Your task to perform on an android device: see creations saved in the google photos Image 0: 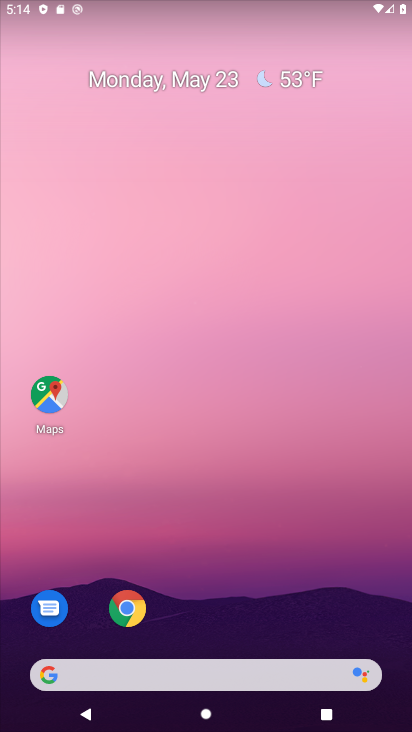
Step 0: press home button
Your task to perform on an android device: see creations saved in the google photos Image 1: 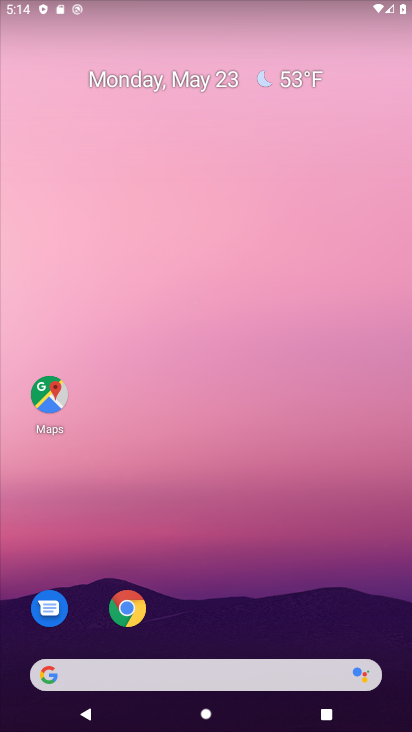
Step 1: drag from (102, 444) to (238, 114)
Your task to perform on an android device: see creations saved in the google photos Image 2: 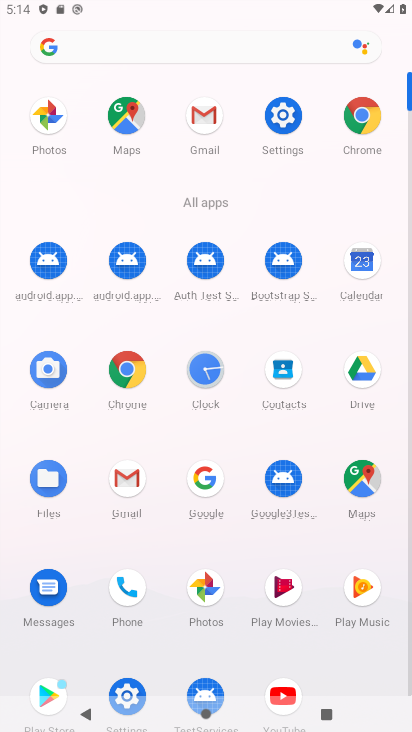
Step 2: click (206, 581)
Your task to perform on an android device: see creations saved in the google photos Image 3: 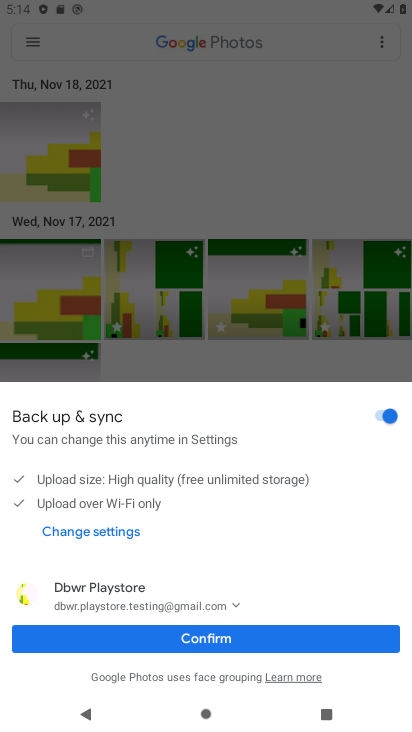
Step 3: click (252, 643)
Your task to perform on an android device: see creations saved in the google photos Image 4: 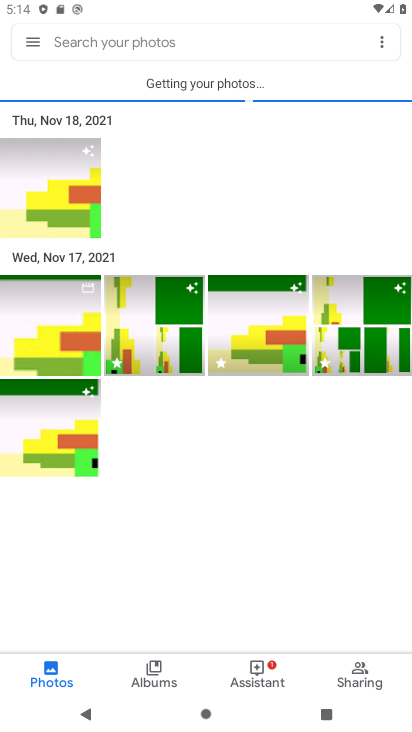
Step 4: click (194, 31)
Your task to perform on an android device: see creations saved in the google photos Image 5: 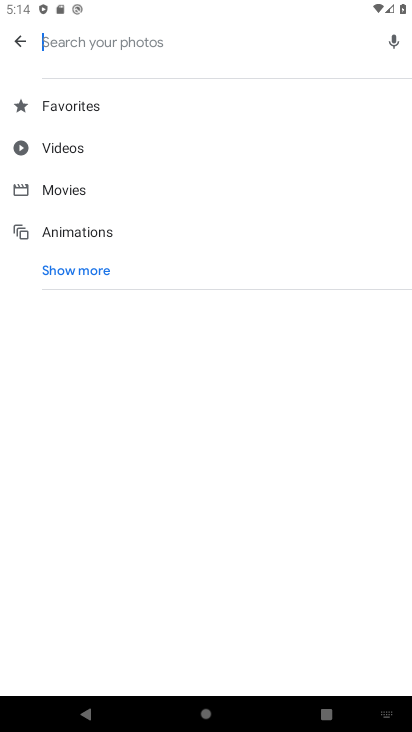
Step 5: click (91, 272)
Your task to perform on an android device: see creations saved in the google photos Image 6: 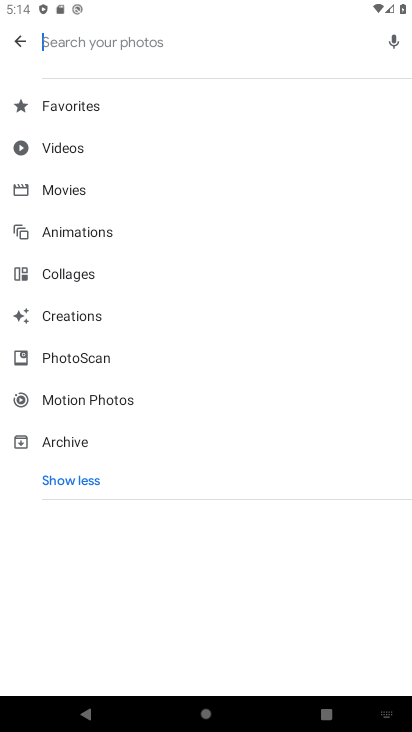
Step 6: click (56, 315)
Your task to perform on an android device: see creations saved in the google photos Image 7: 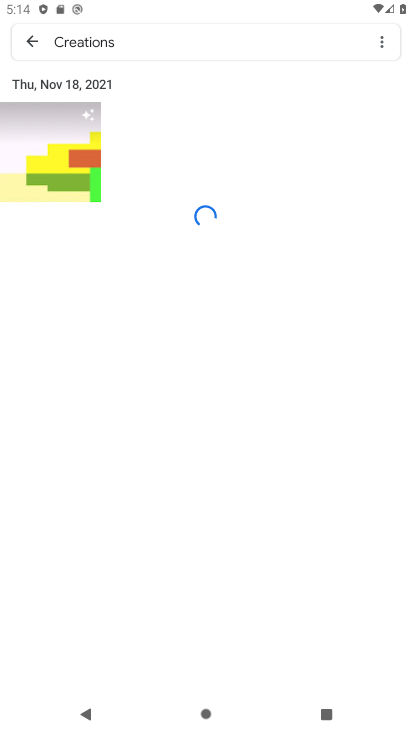
Step 7: task complete